Your task to perform on an android device: make emails show in primary in the gmail app Image 0: 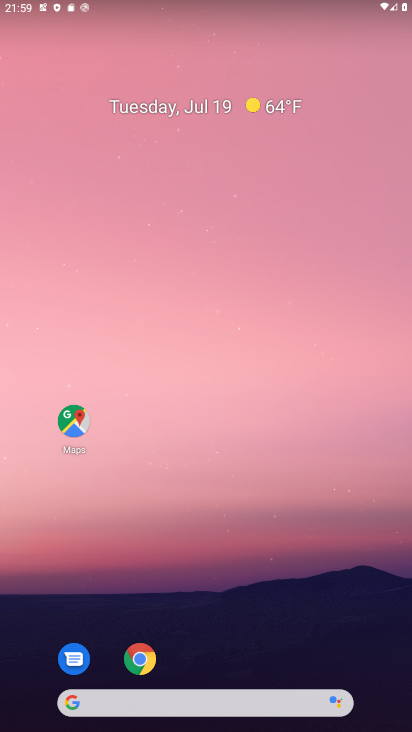
Step 0: drag from (206, 554) to (205, 117)
Your task to perform on an android device: make emails show in primary in the gmail app Image 1: 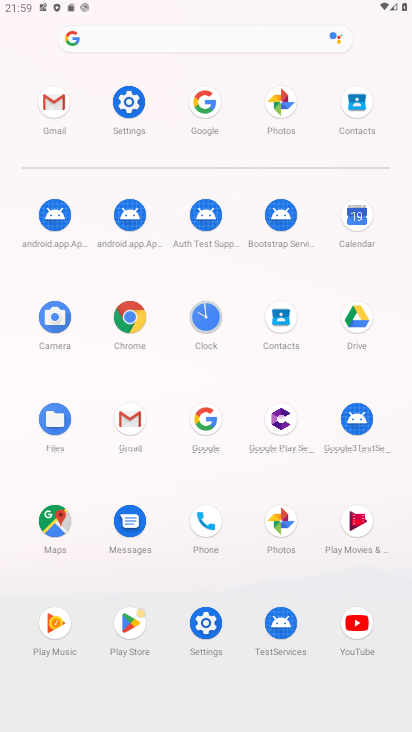
Step 1: click (128, 424)
Your task to perform on an android device: make emails show in primary in the gmail app Image 2: 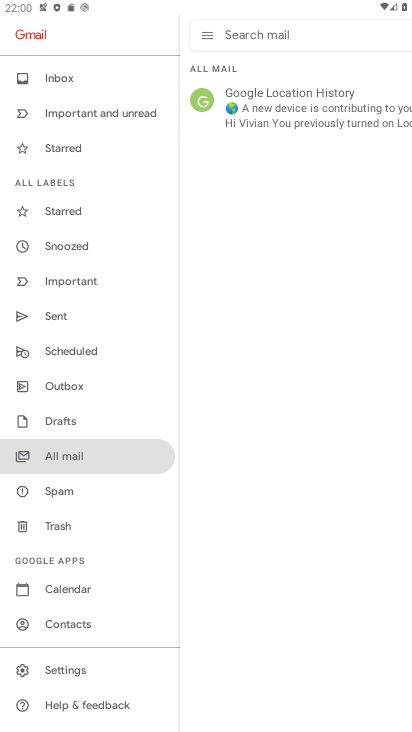
Step 2: task complete